Your task to perform on an android device: Open wifi settings Image 0: 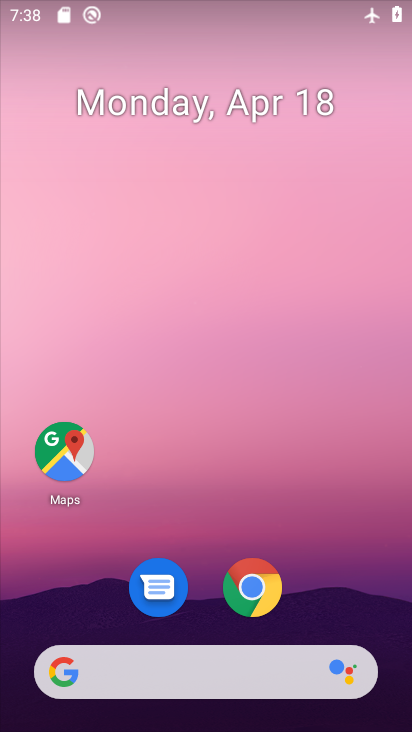
Step 0: drag from (245, 10) to (260, 511)
Your task to perform on an android device: Open wifi settings Image 1: 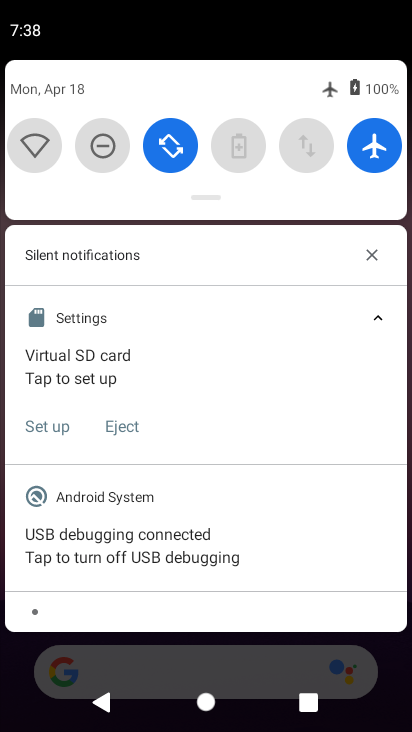
Step 1: click (52, 159)
Your task to perform on an android device: Open wifi settings Image 2: 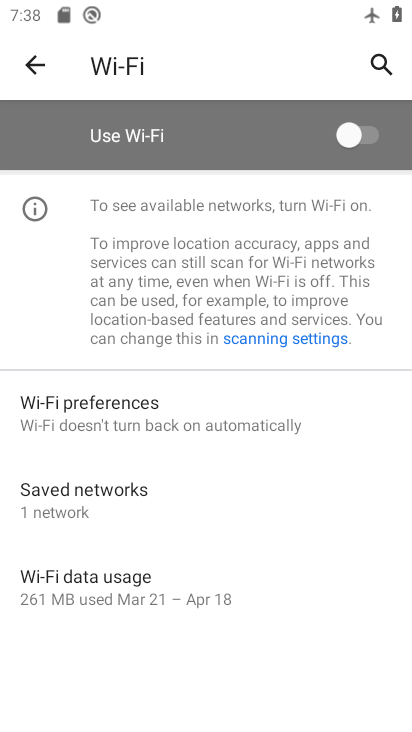
Step 2: task complete